Your task to perform on an android device: set default search engine in the chrome app Image 0: 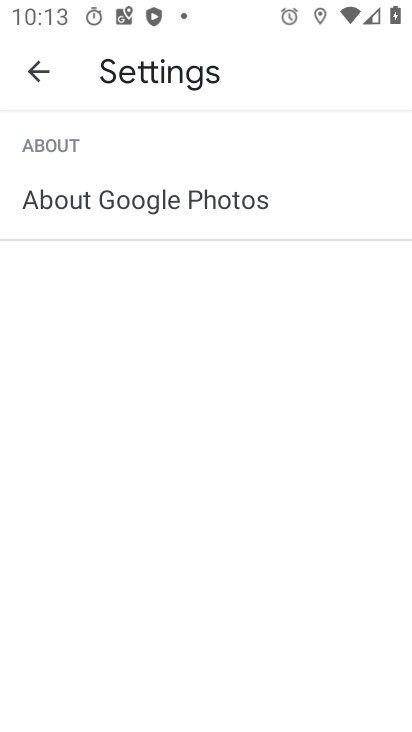
Step 0: click (34, 68)
Your task to perform on an android device: set default search engine in the chrome app Image 1: 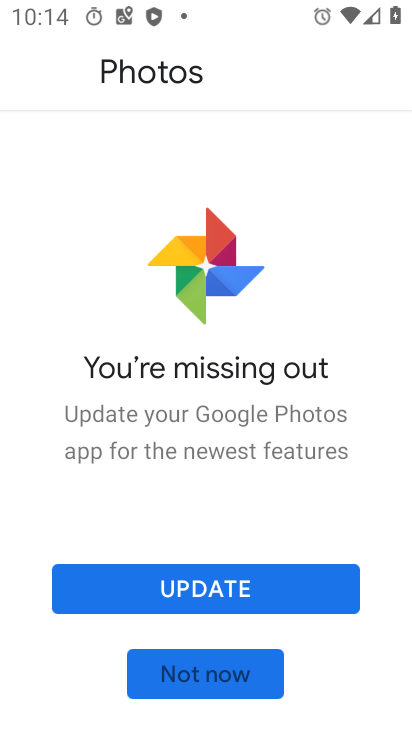
Step 1: click (202, 582)
Your task to perform on an android device: set default search engine in the chrome app Image 2: 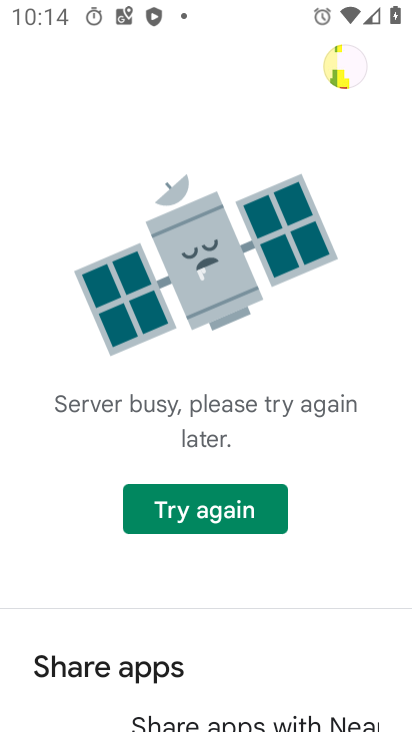
Step 2: click (223, 589)
Your task to perform on an android device: set default search engine in the chrome app Image 3: 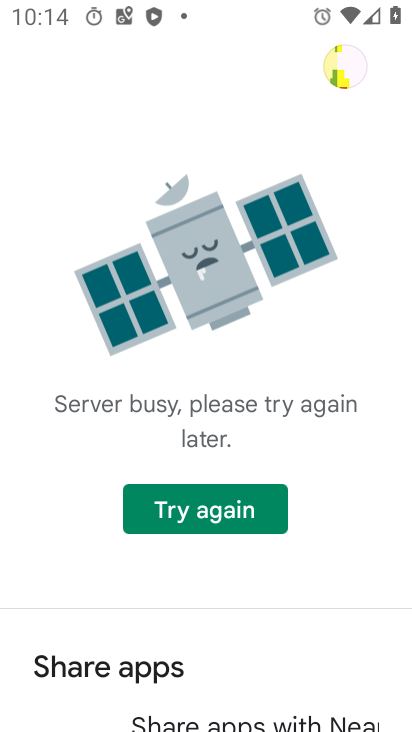
Step 3: click (244, 576)
Your task to perform on an android device: set default search engine in the chrome app Image 4: 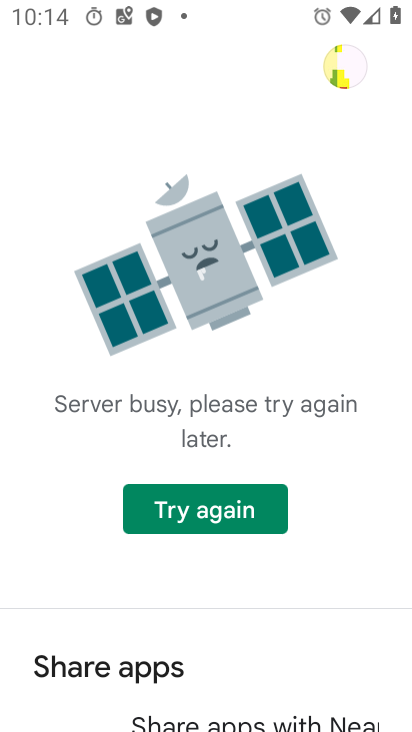
Step 4: click (250, 576)
Your task to perform on an android device: set default search engine in the chrome app Image 5: 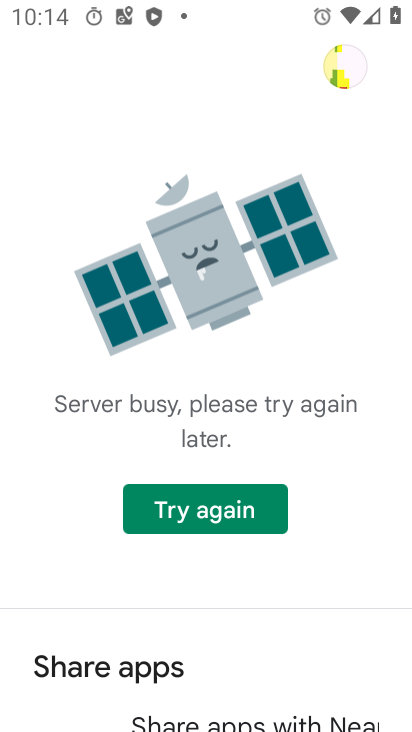
Step 5: click (280, 570)
Your task to perform on an android device: set default search engine in the chrome app Image 6: 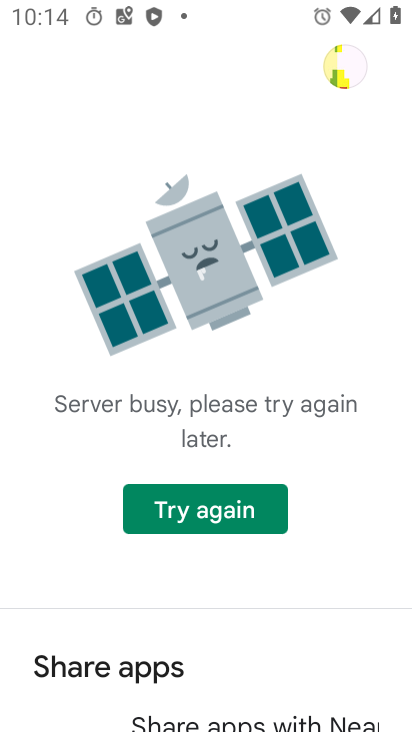
Step 6: click (284, 570)
Your task to perform on an android device: set default search engine in the chrome app Image 7: 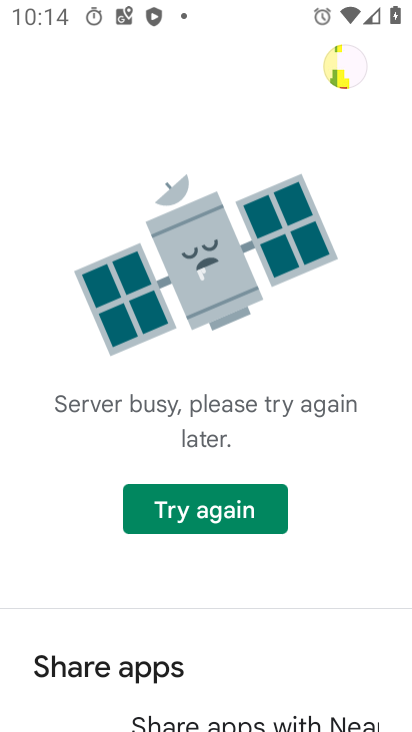
Step 7: task complete